Your task to perform on an android device: change the clock display to show seconds Image 0: 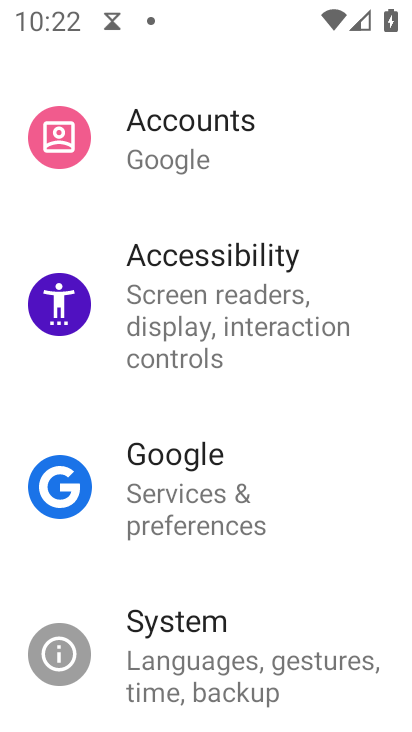
Step 0: drag from (294, 183) to (251, 546)
Your task to perform on an android device: change the clock display to show seconds Image 1: 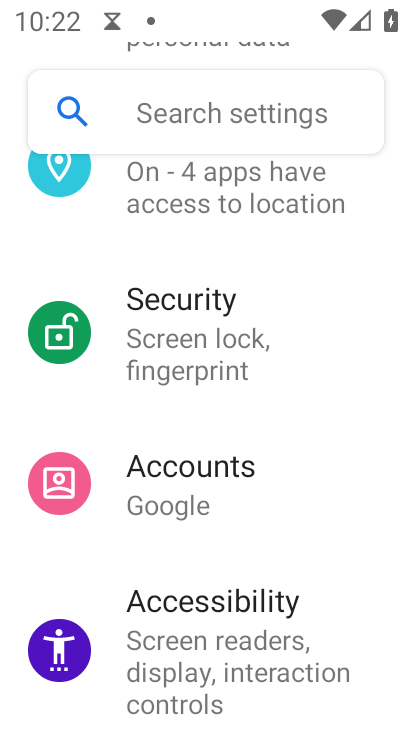
Step 1: drag from (289, 725) to (238, 710)
Your task to perform on an android device: change the clock display to show seconds Image 2: 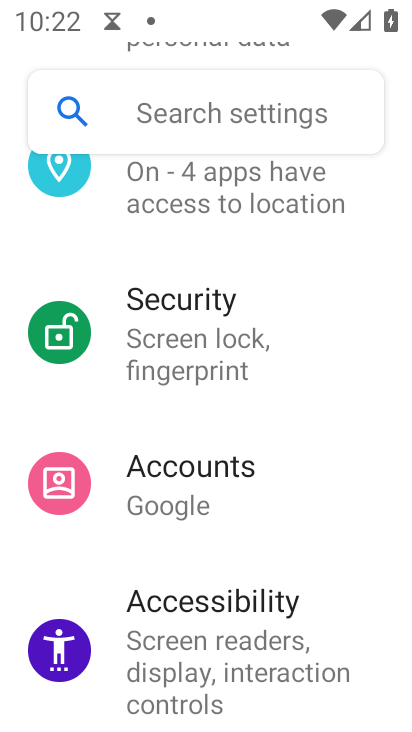
Step 2: drag from (245, 307) to (245, 695)
Your task to perform on an android device: change the clock display to show seconds Image 3: 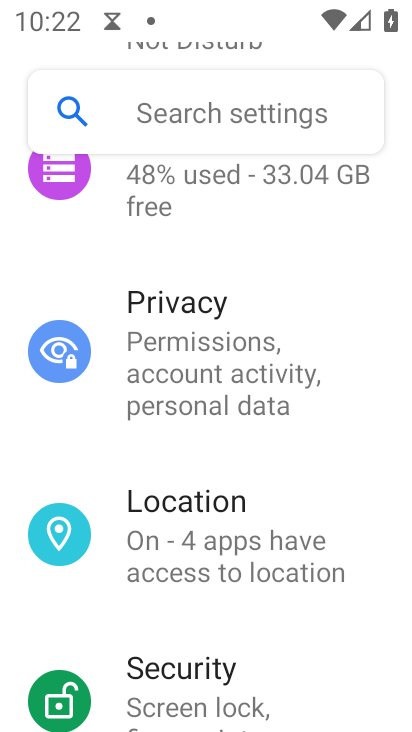
Step 3: press back button
Your task to perform on an android device: change the clock display to show seconds Image 4: 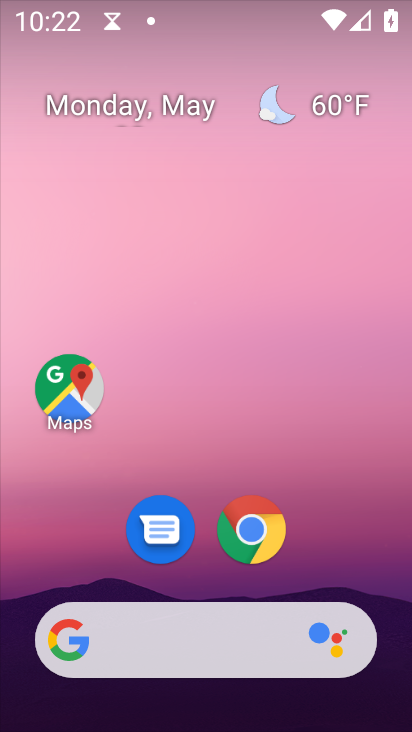
Step 4: drag from (238, 583) to (190, 166)
Your task to perform on an android device: change the clock display to show seconds Image 5: 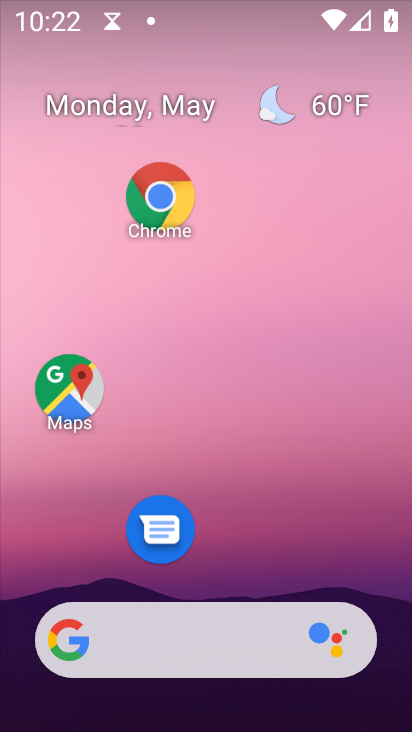
Step 5: drag from (242, 580) to (195, 152)
Your task to perform on an android device: change the clock display to show seconds Image 6: 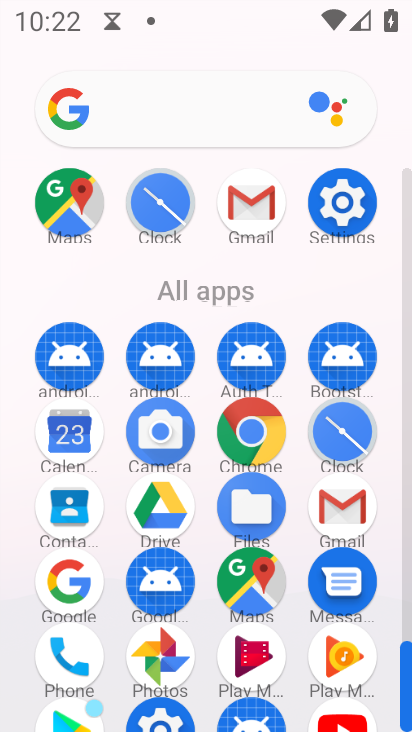
Step 6: click (349, 433)
Your task to perform on an android device: change the clock display to show seconds Image 7: 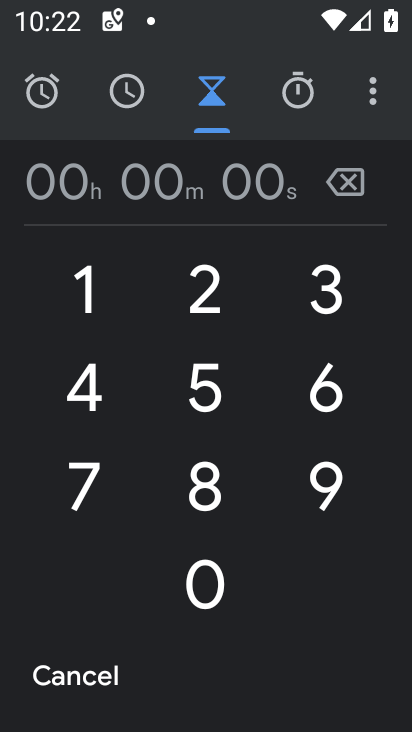
Step 7: click (374, 96)
Your task to perform on an android device: change the clock display to show seconds Image 8: 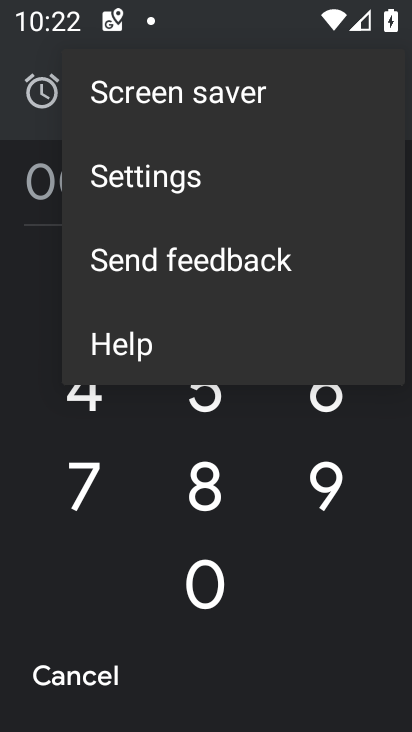
Step 8: click (193, 195)
Your task to perform on an android device: change the clock display to show seconds Image 9: 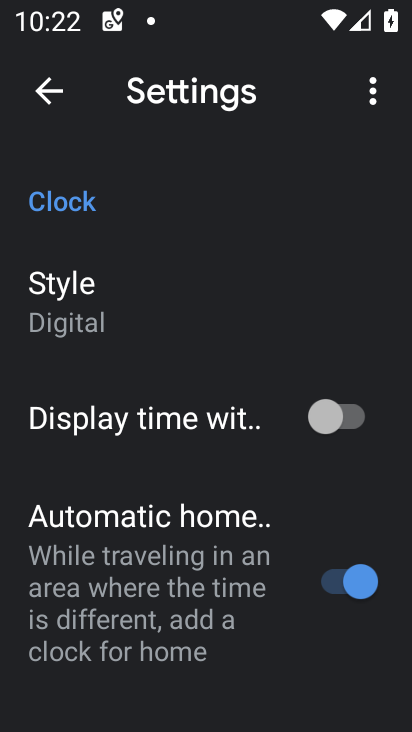
Step 9: click (123, 306)
Your task to perform on an android device: change the clock display to show seconds Image 10: 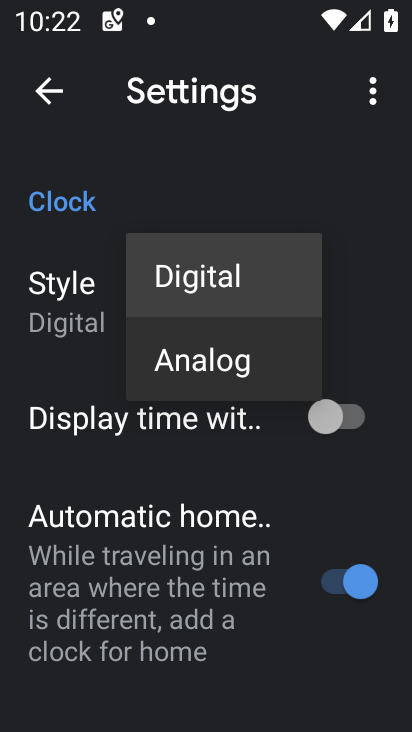
Step 10: click (357, 425)
Your task to perform on an android device: change the clock display to show seconds Image 11: 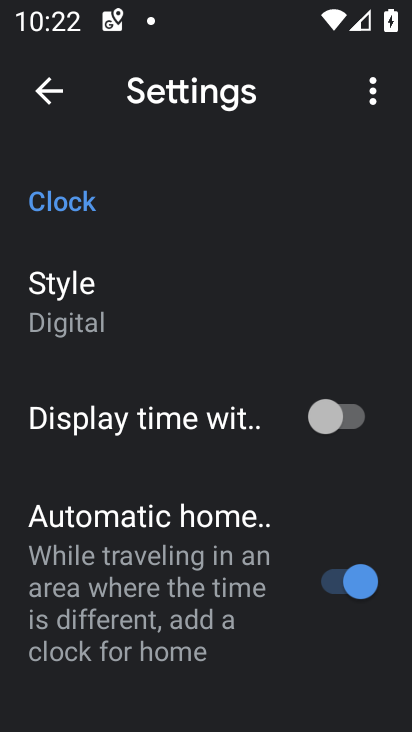
Step 11: click (357, 425)
Your task to perform on an android device: change the clock display to show seconds Image 12: 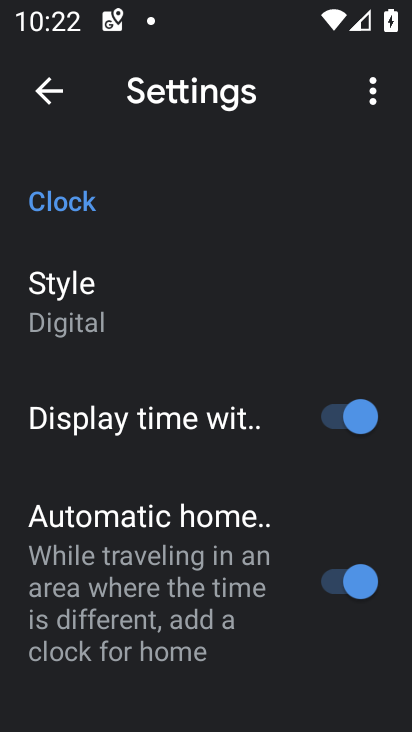
Step 12: task complete